Your task to perform on an android device: toggle location history Image 0: 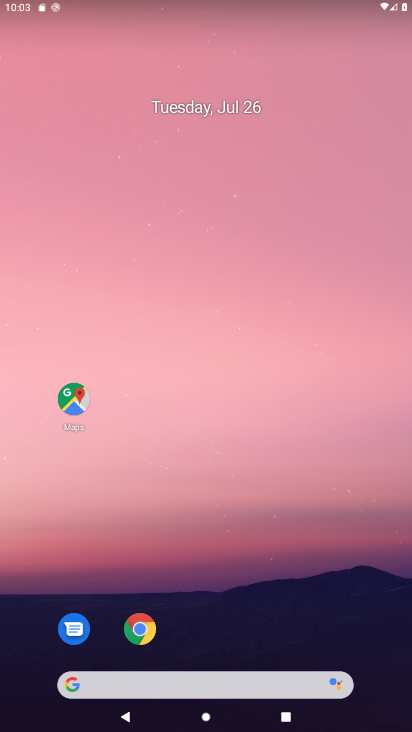
Step 0: drag from (354, 627) to (163, 20)
Your task to perform on an android device: toggle location history Image 1: 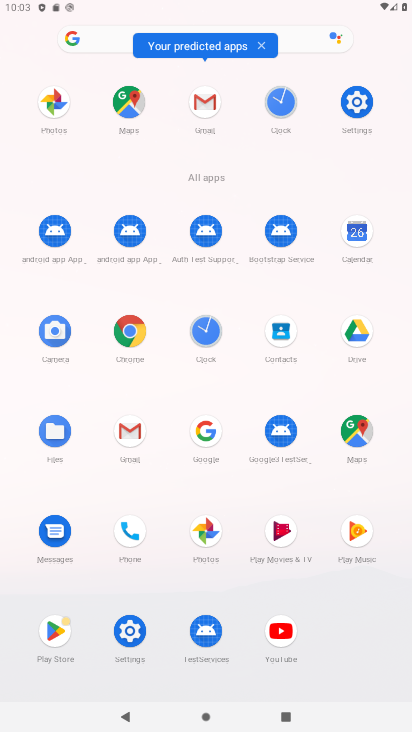
Step 1: click (120, 635)
Your task to perform on an android device: toggle location history Image 2: 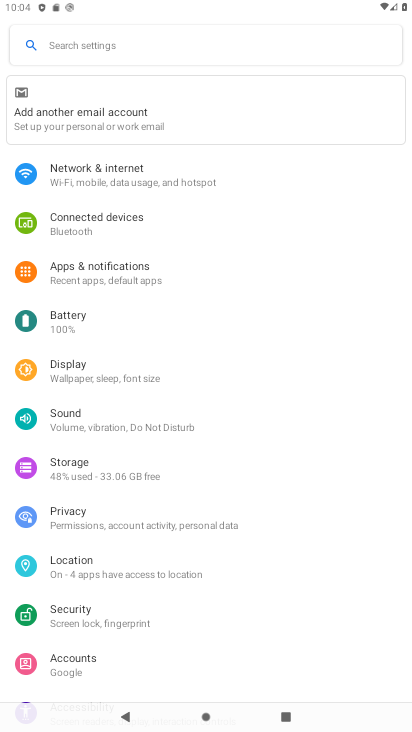
Step 2: click (78, 568)
Your task to perform on an android device: toggle location history Image 3: 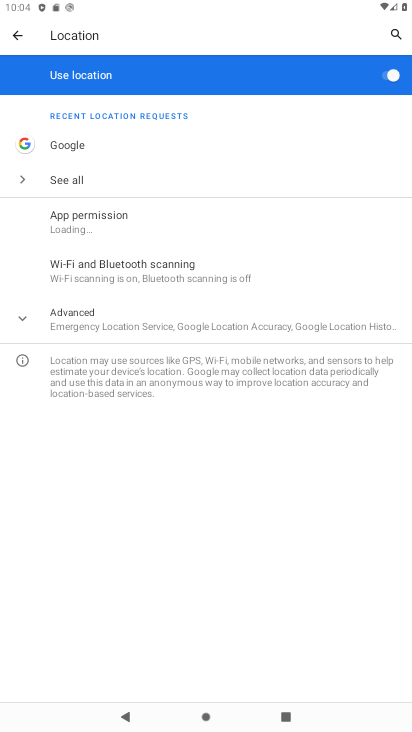
Step 3: click (93, 320)
Your task to perform on an android device: toggle location history Image 4: 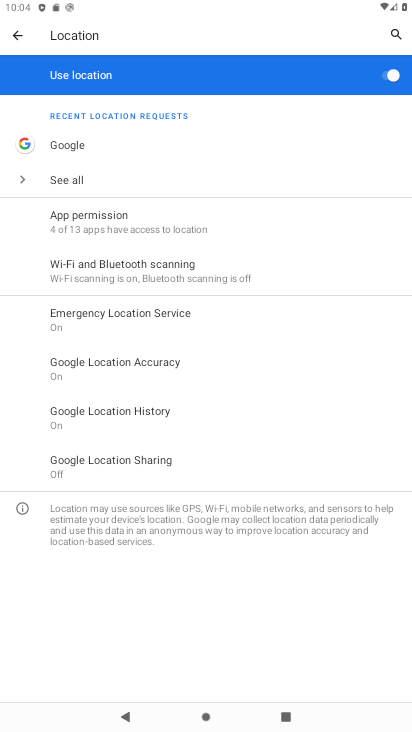
Step 4: click (158, 412)
Your task to perform on an android device: toggle location history Image 5: 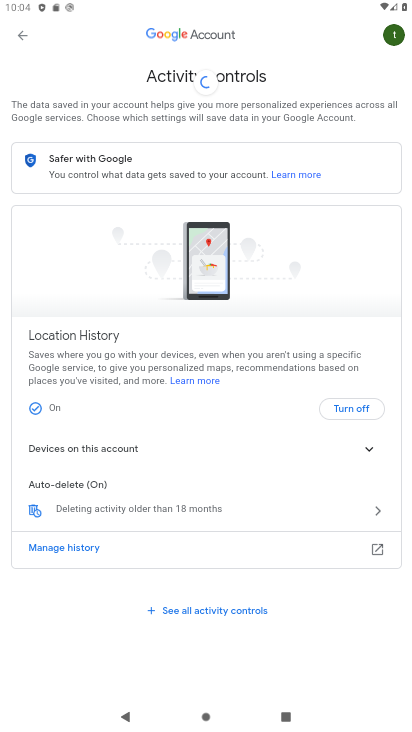
Step 5: click (353, 413)
Your task to perform on an android device: toggle location history Image 6: 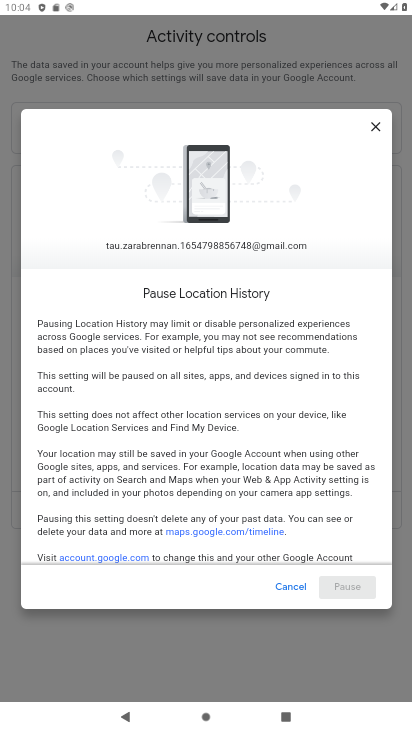
Step 6: task complete